Your task to perform on an android device: Go to Amazon Image 0: 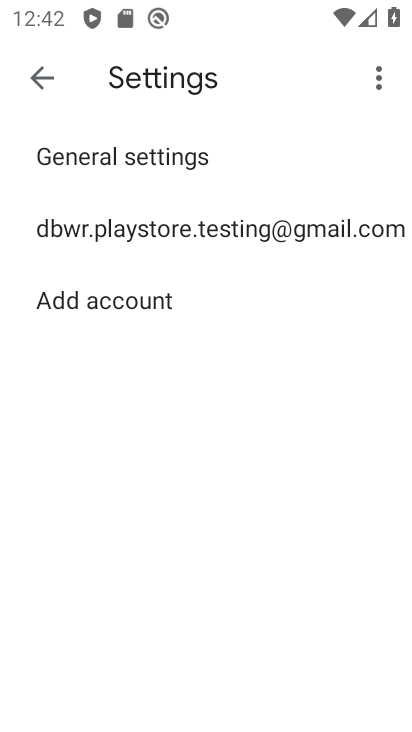
Step 0: press home button
Your task to perform on an android device: Go to Amazon Image 1: 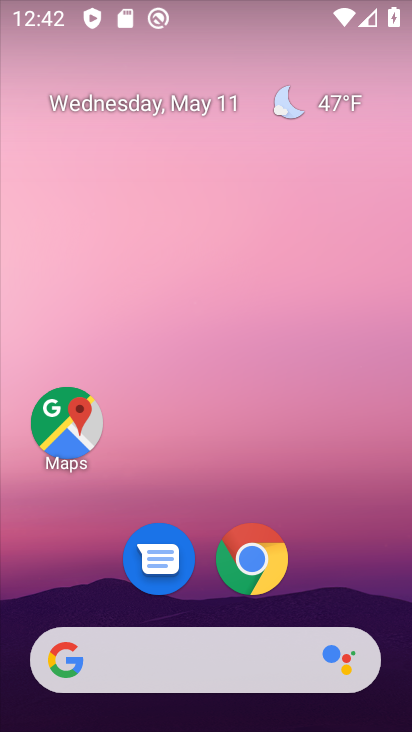
Step 1: click (262, 559)
Your task to perform on an android device: Go to Amazon Image 2: 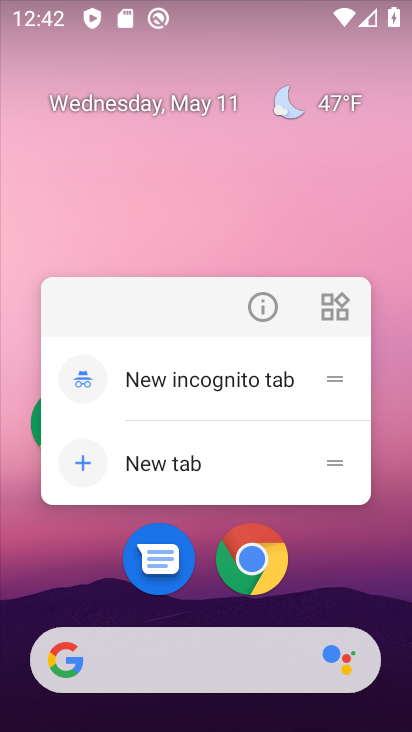
Step 2: click (262, 559)
Your task to perform on an android device: Go to Amazon Image 3: 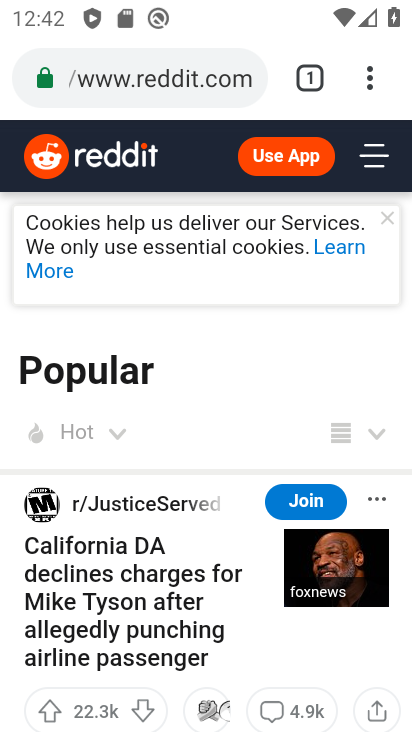
Step 3: click (378, 72)
Your task to perform on an android device: Go to Amazon Image 4: 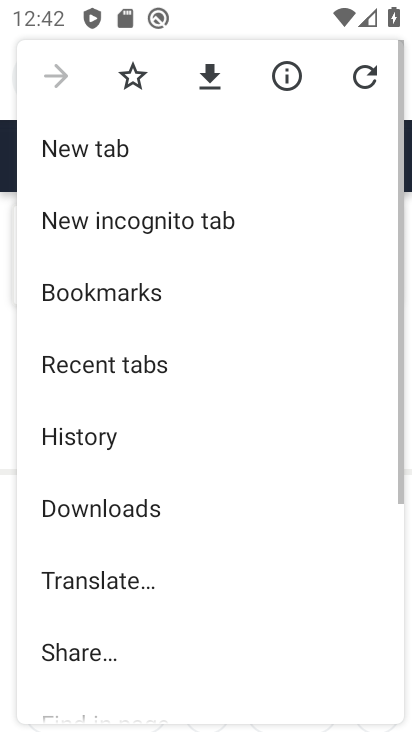
Step 4: click (133, 152)
Your task to perform on an android device: Go to Amazon Image 5: 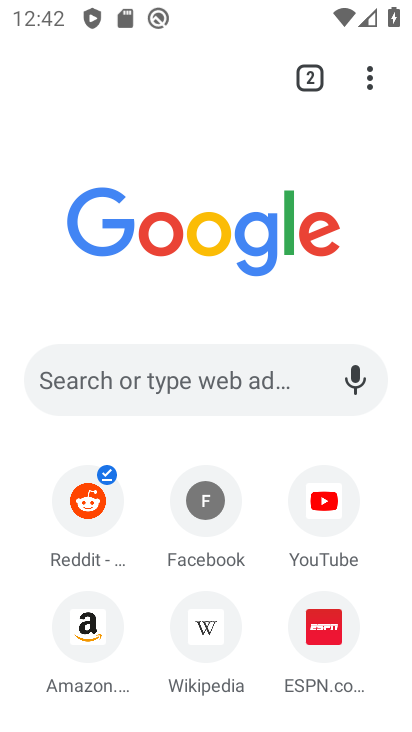
Step 5: click (89, 644)
Your task to perform on an android device: Go to Amazon Image 6: 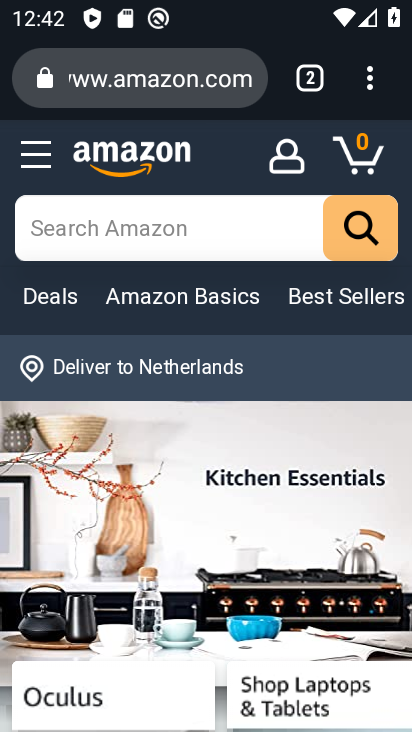
Step 6: task complete